Your task to perform on an android device: Go to eBay Image 0: 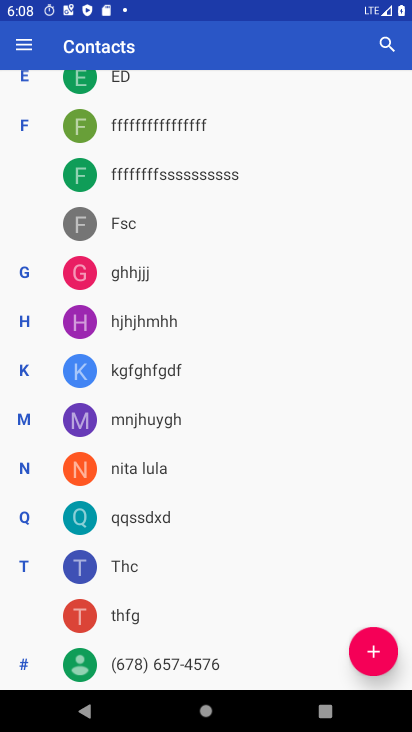
Step 0: press home button
Your task to perform on an android device: Go to eBay Image 1: 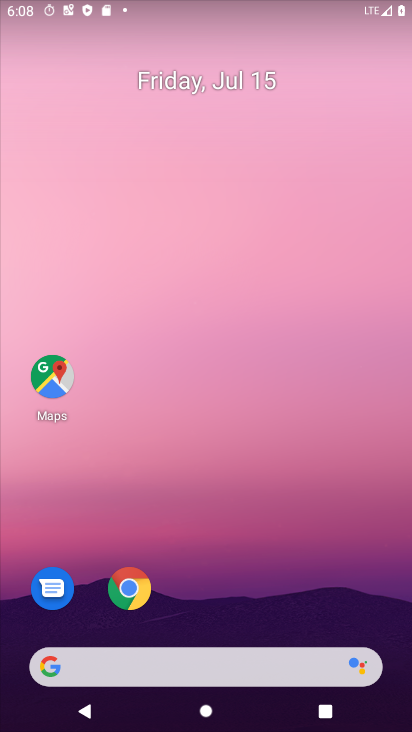
Step 1: drag from (353, 642) to (340, 52)
Your task to perform on an android device: Go to eBay Image 2: 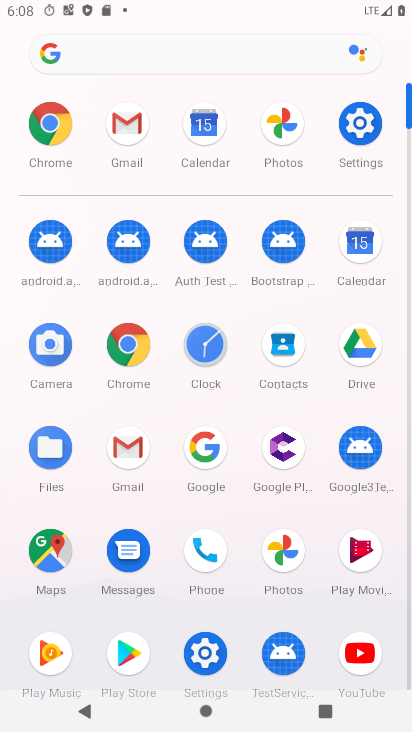
Step 2: click (135, 339)
Your task to perform on an android device: Go to eBay Image 3: 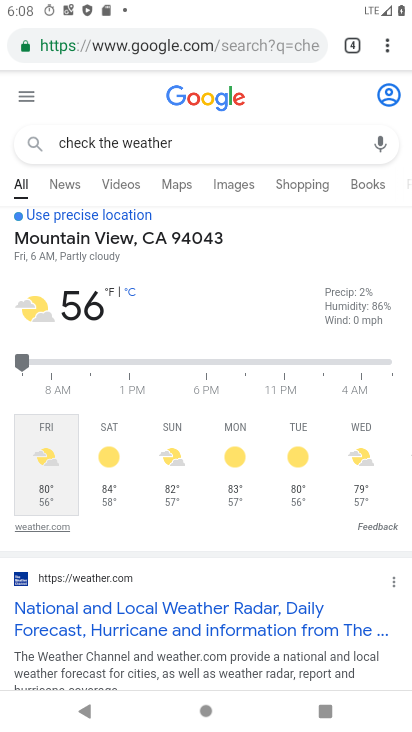
Step 3: click (385, 48)
Your task to perform on an android device: Go to eBay Image 4: 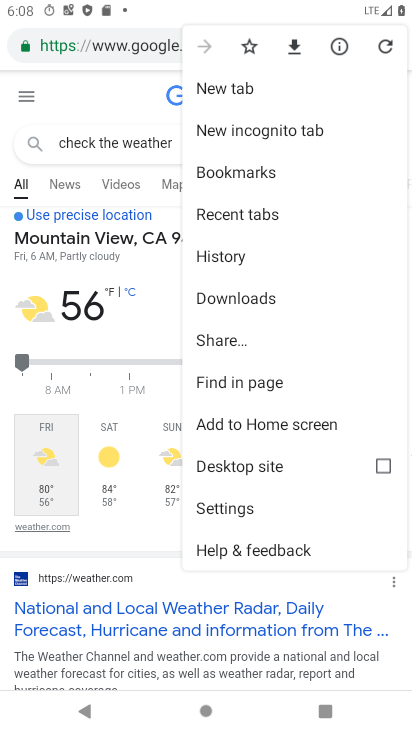
Step 4: click (305, 83)
Your task to perform on an android device: Go to eBay Image 5: 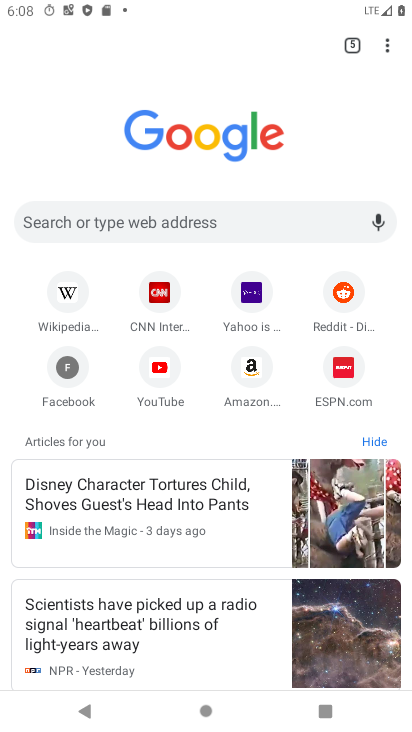
Step 5: click (252, 219)
Your task to perform on an android device: Go to eBay Image 6: 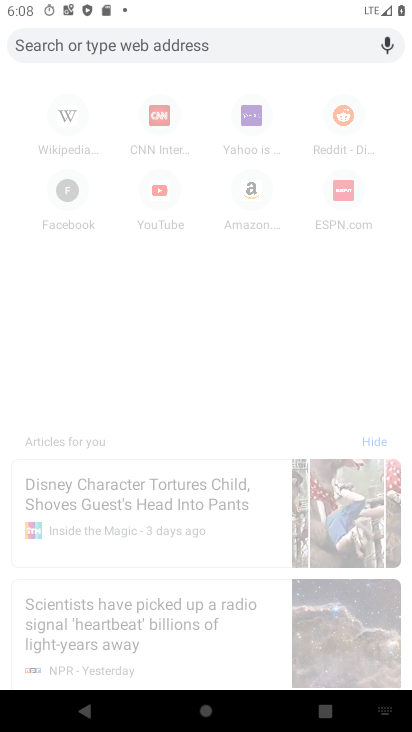
Step 6: type "ebay"
Your task to perform on an android device: Go to eBay Image 7: 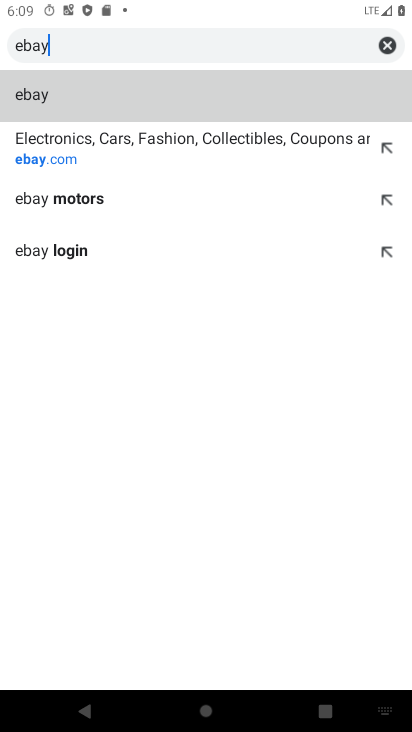
Step 7: click (248, 150)
Your task to perform on an android device: Go to eBay Image 8: 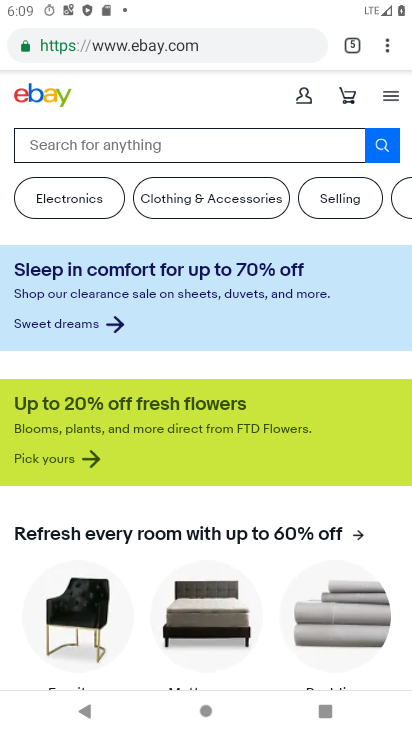
Step 8: task complete